Your task to perform on an android device: What is the capital of Argentina? Image 0: 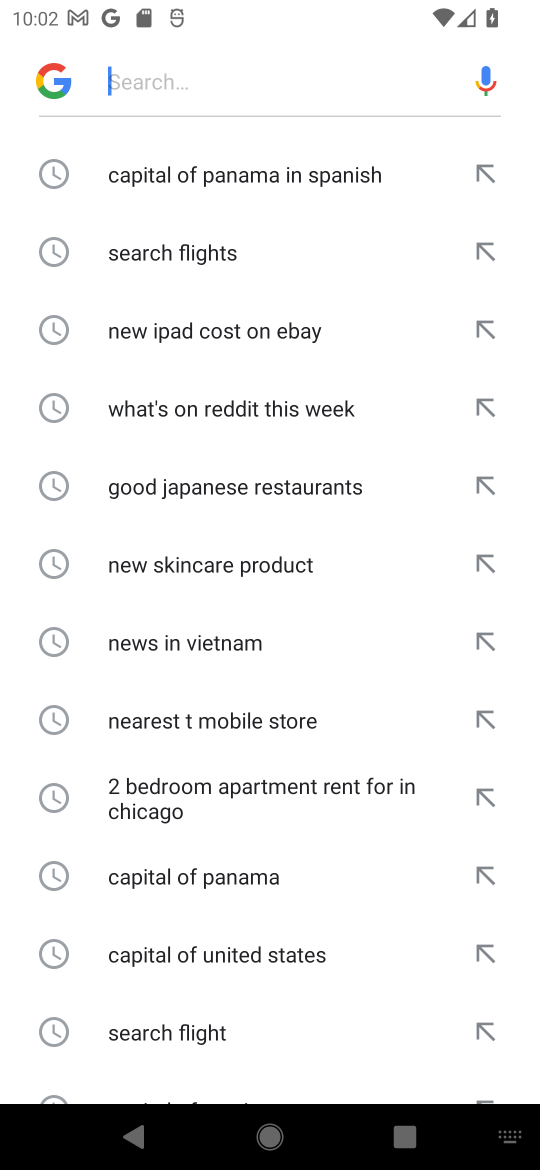
Step 0: press home button
Your task to perform on an android device: What is the capital of Argentina? Image 1: 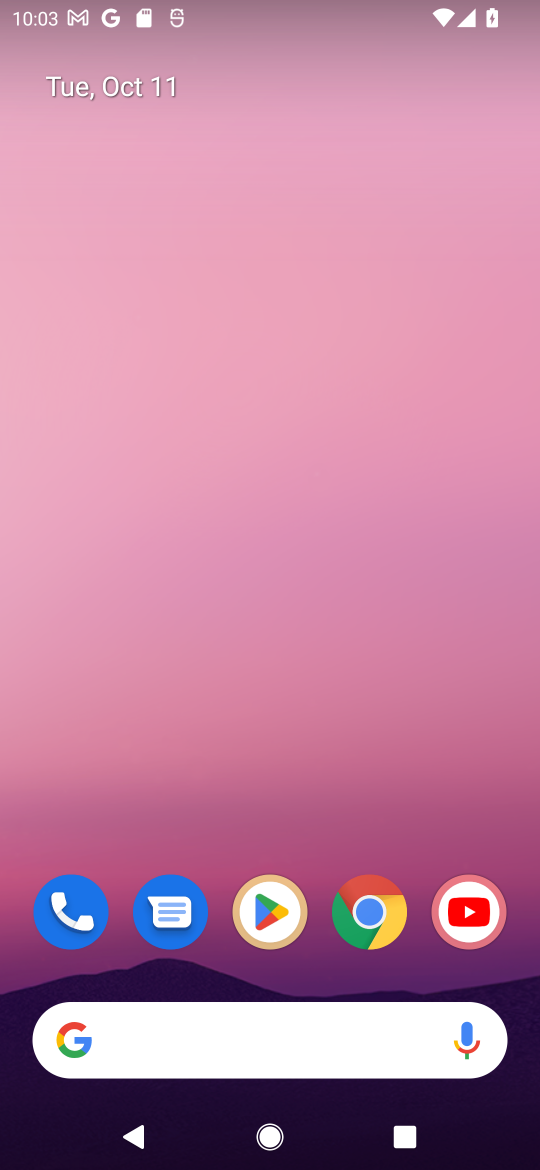
Step 1: click (366, 904)
Your task to perform on an android device: What is the capital of Argentina? Image 2: 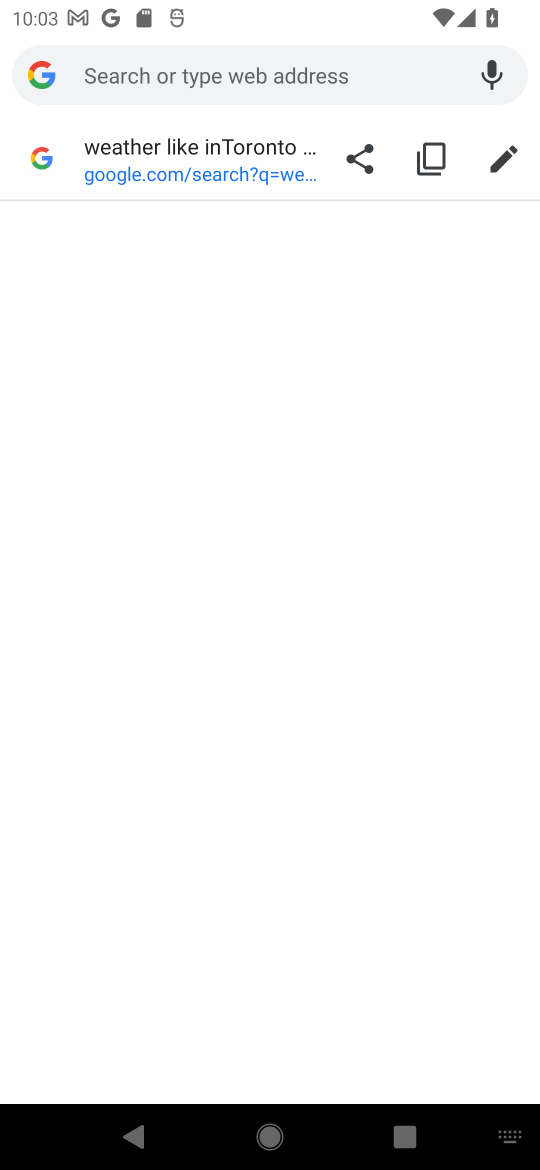
Step 2: click (190, 71)
Your task to perform on an android device: What is the capital of Argentina? Image 3: 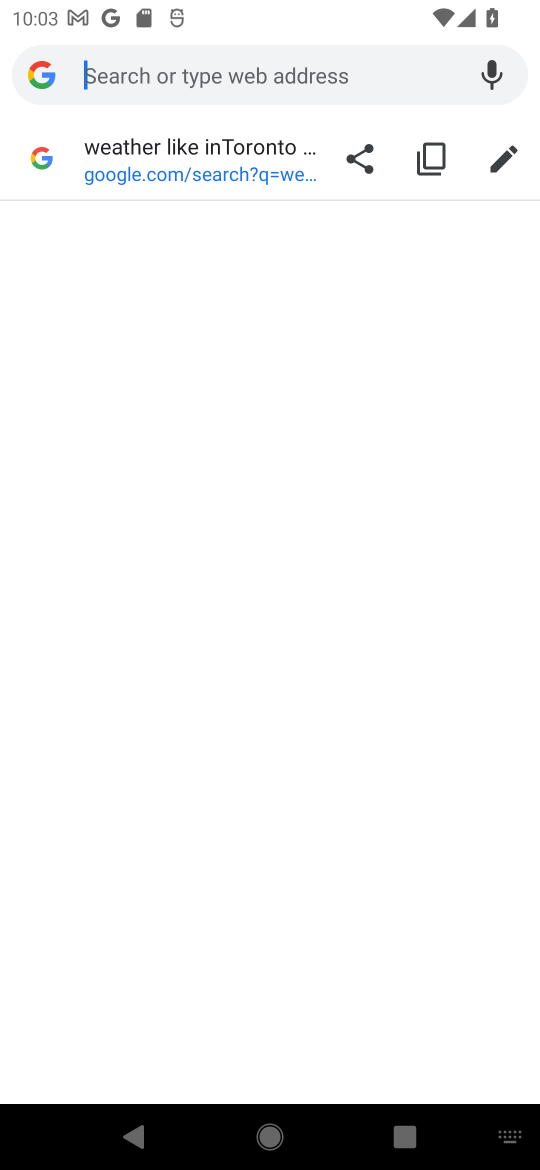
Step 3: type "capital of Argentina?"
Your task to perform on an android device: What is the capital of Argentina? Image 4: 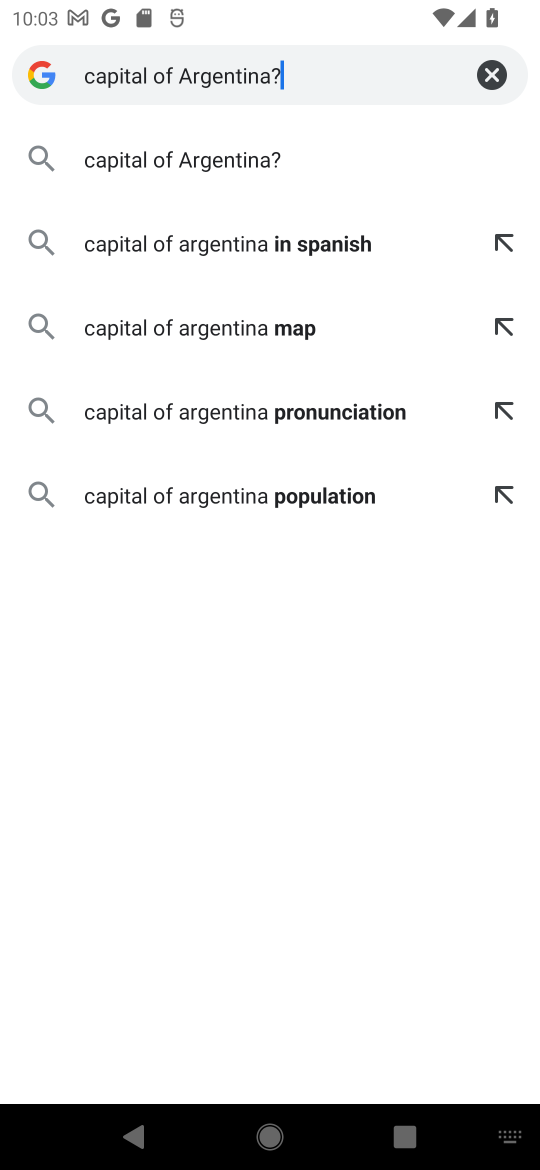
Step 4: click (194, 160)
Your task to perform on an android device: What is the capital of Argentina? Image 5: 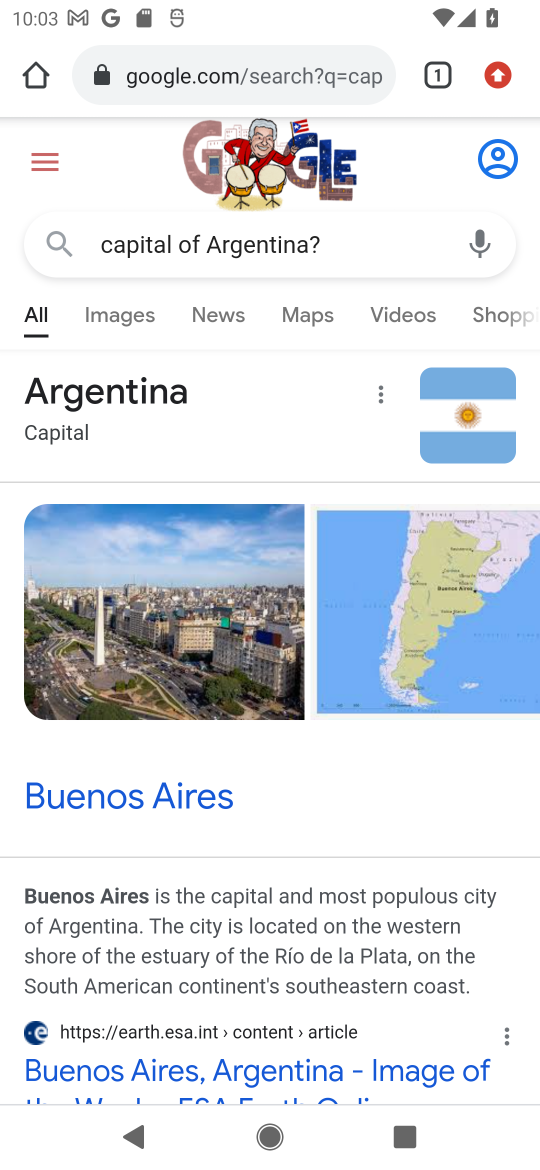
Step 5: task complete